Your task to perform on an android device: clear history in the chrome app Image 0: 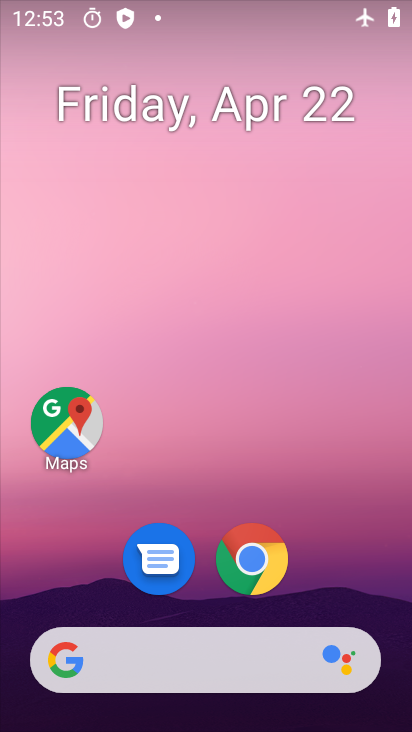
Step 0: drag from (352, 504) to (366, 82)
Your task to perform on an android device: clear history in the chrome app Image 1: 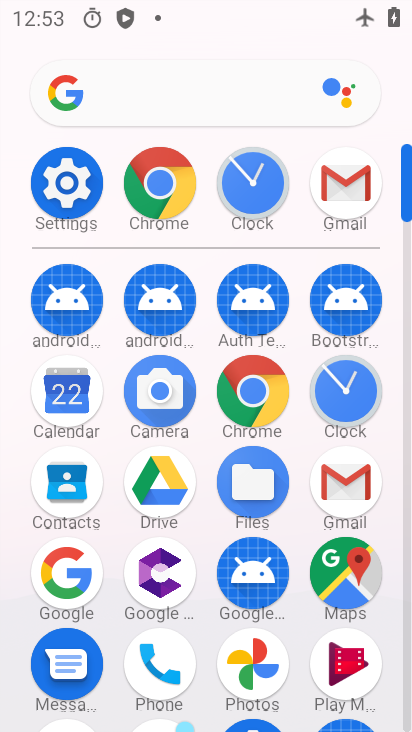
Step 1: click (171, 213)
Your task to perform on an android device: clear history in the chrome app Image 2: 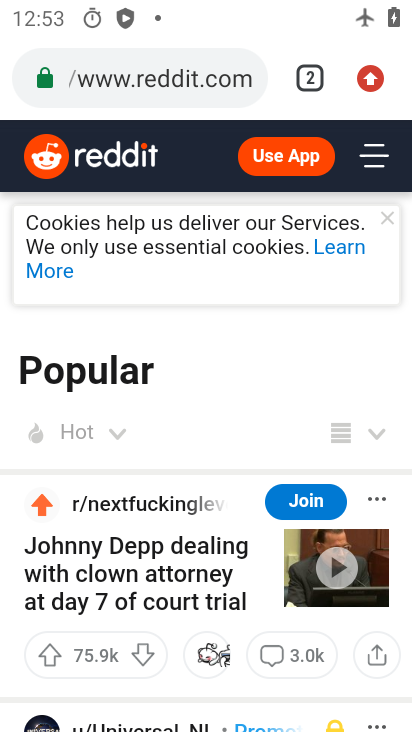
Step 2: click (370, 85)
Your task to perform on an android device: clear history in the chrome app Image 3: 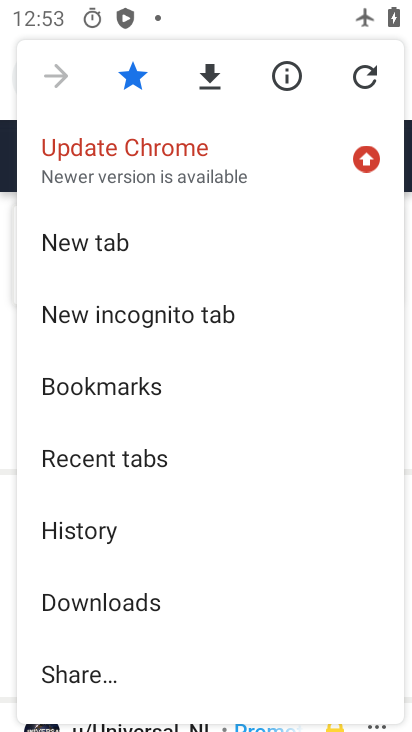
Step 3: drag from (349, 487) to (361, 370)
Your task to perform on an android device: clear history in the chrome app Image 4: 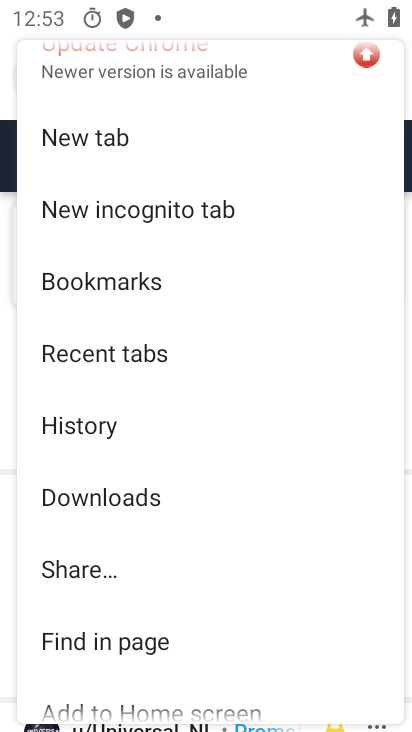
Step 4: drag from (371, 598) to (372, 469)
Your task to perform on an android device: clear history in the chrome app Image 5: 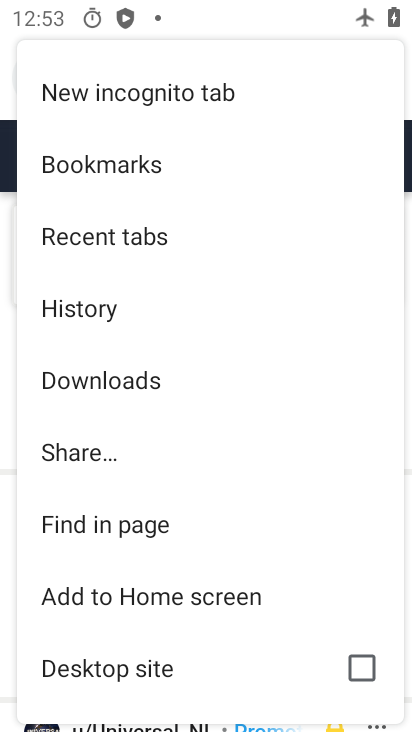
Step 5: click (114, 306)
Your task to perform on an android device: clear history in the chrome app Image 6: 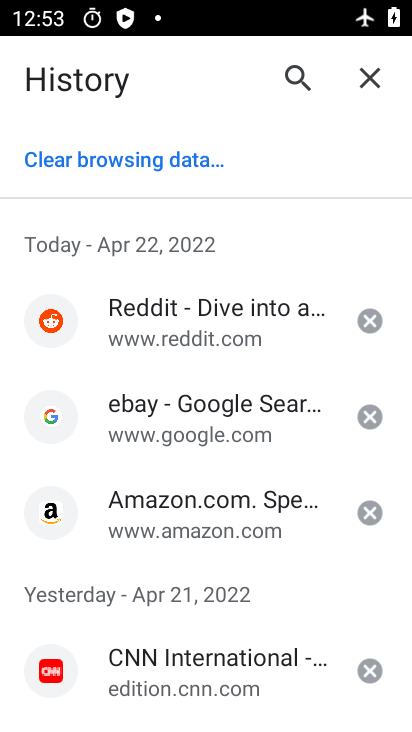
Step 6: click (209, 175)
Your task to perform on an android device: clear history in the chrome app Image 7: 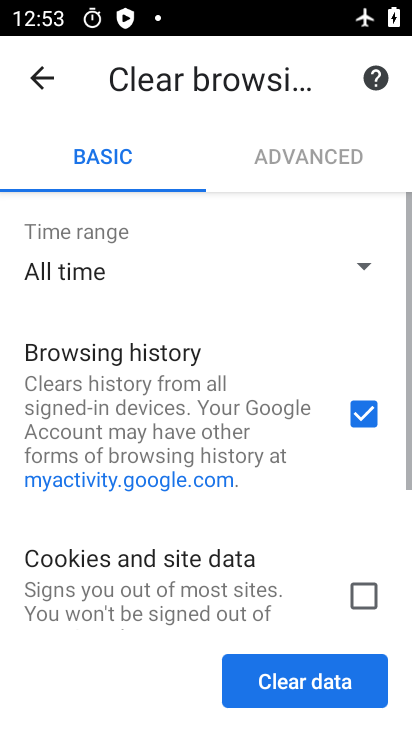
Step 7: click (362, 596)
Your task to perform on an android device: clear history in the chrome app Image 8: 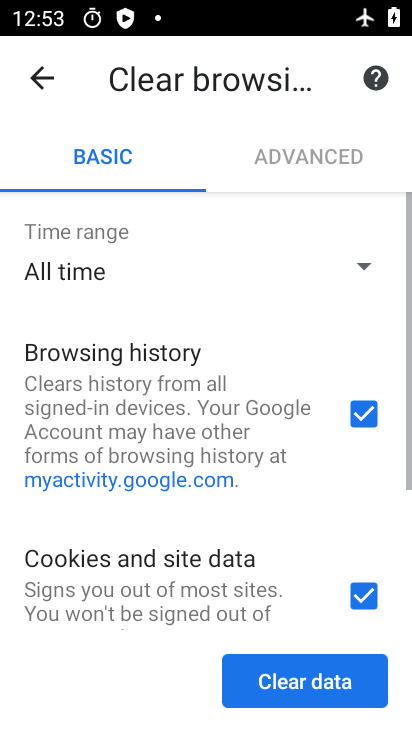
Step 8: click (354, 673)
Your task to perform on an android device: clear history in the chrome app Image 9: 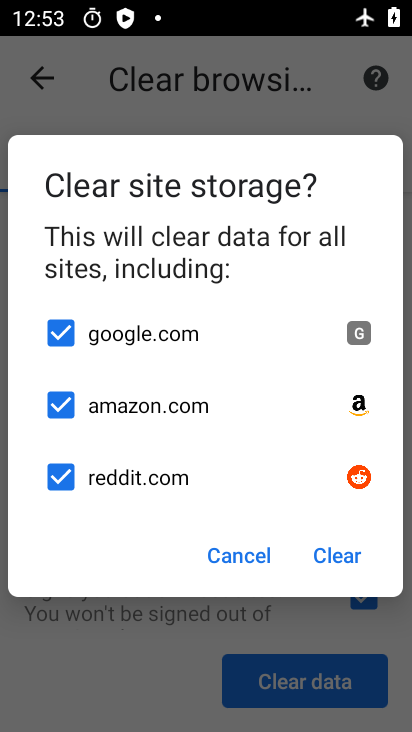
Step 9: click (349, 554)
Your task to perform on an android device: clear history in the chrome app Image 10: 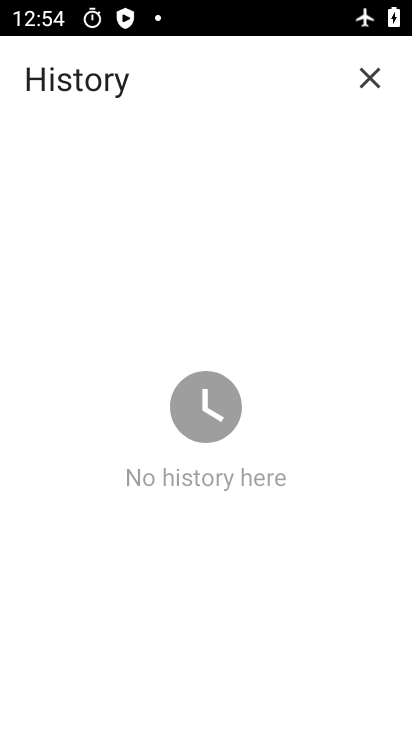
Step 10: task complete